Your task to perform on an android device: allow cookies in the chrome app Image 0: 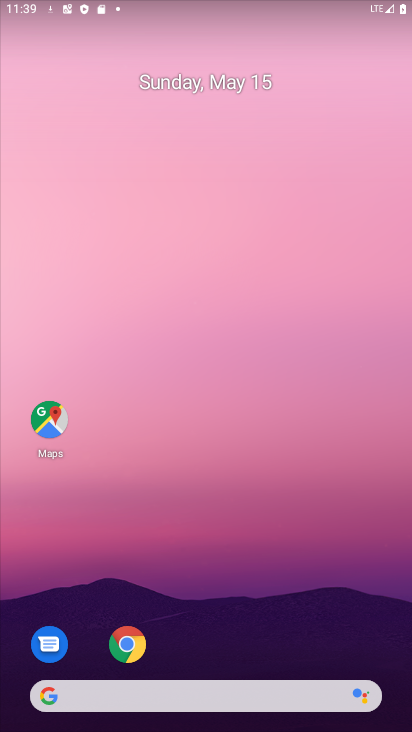
Step 0: drag from (209, 713) to (97, 349)
Your task to perform on an android device: allow cookies in the chrome app Image 1: 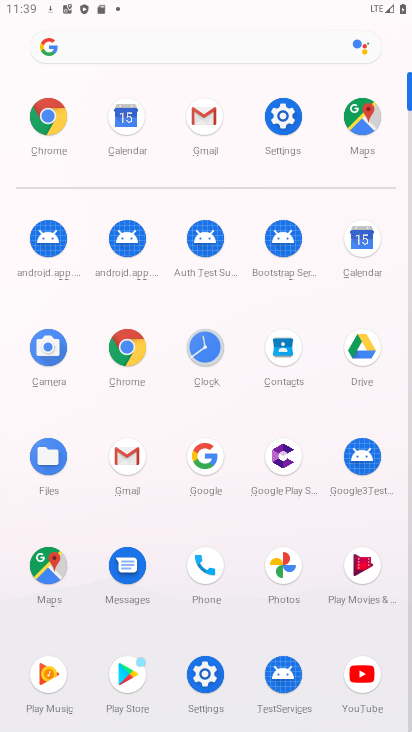
Step 1: click (133, 356)
Your task to perform on an android device: allow cookies in the chrome app Image 2: 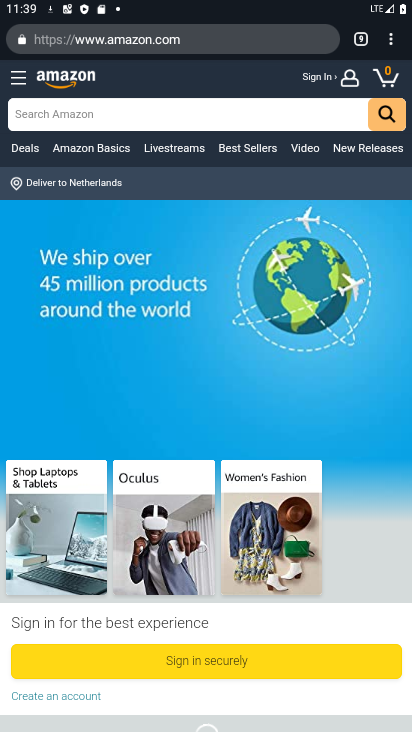
Step 2: click (392, 45)
Your task to perform on an android device: allow cookies in the chrome app Image 3: 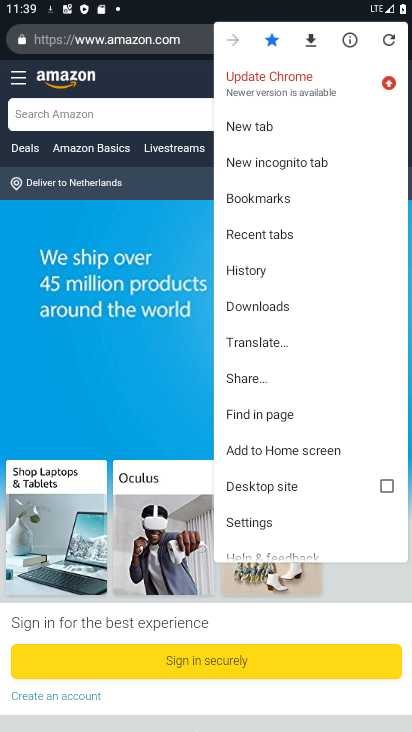
Step 3: click (257, 512)
Your task to perform on an android device: allow cookies in the chrome app Image 4: 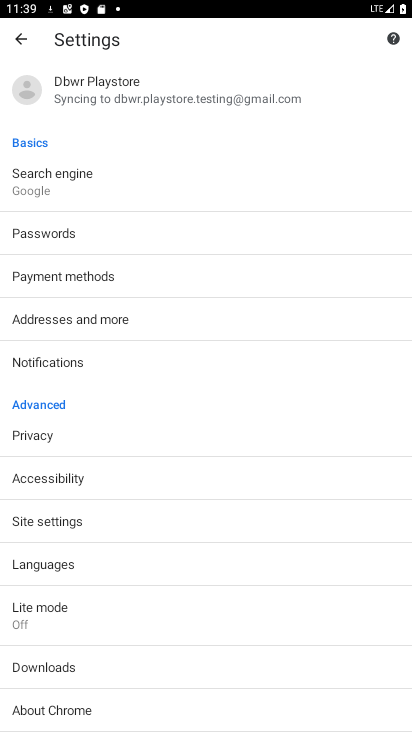
Step 4: click (115, 520)
Your task to perform on an android device: allow cookies in the chrome app Image 5: 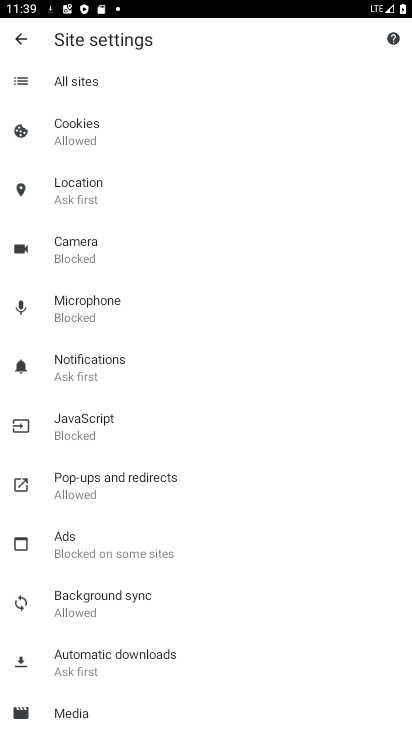
Step 5: click (116, 136)
Your task to perform on an android device: allow cookies in the chrome app Image 6: 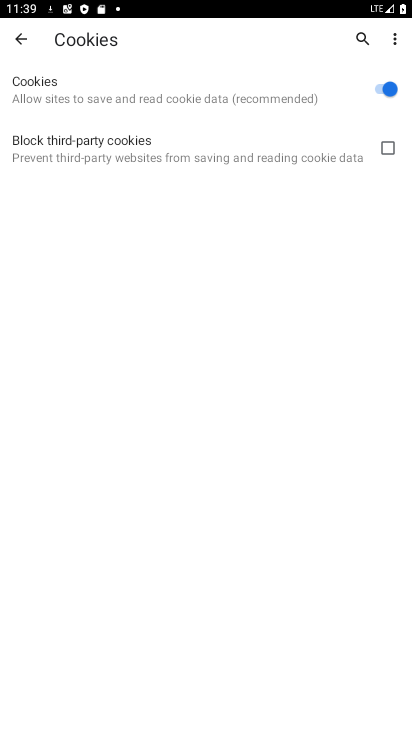
Step 6: click (392, 90)
Your task to perform on an android device: allow cookies in the chrome app Image 7: 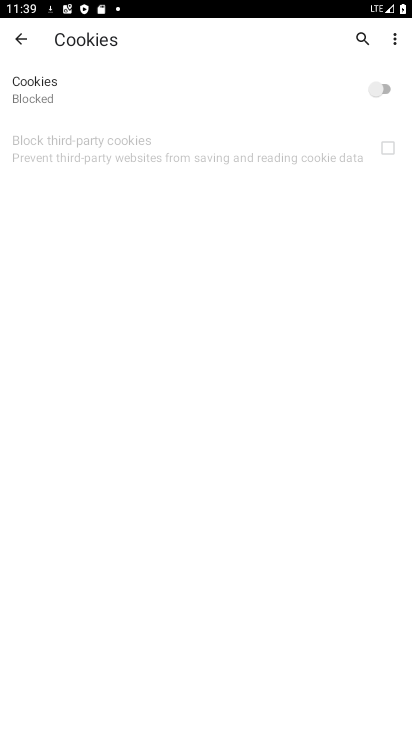
Step 7: click (394, 87)
Your task to perform on an android device: allow cookies in the chrome app Image 8: 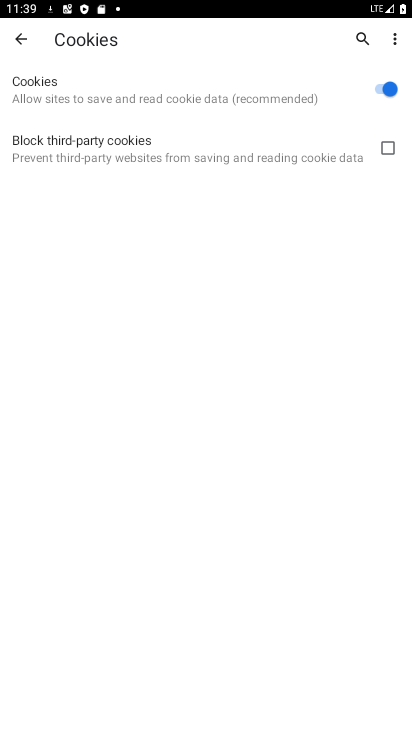
Step 8: task complete